Your task to perform on an android device: change the clock style Image 0: 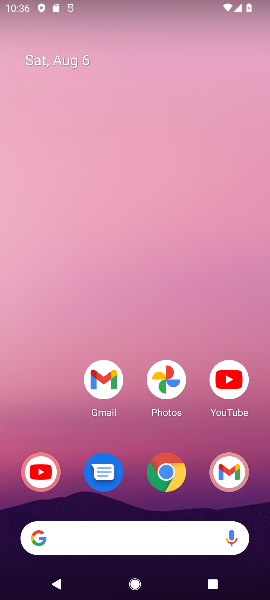
Step 0: drag from (179, 541) to (158, 105)
Your task to perform on an android device: change the clock style Image 1: 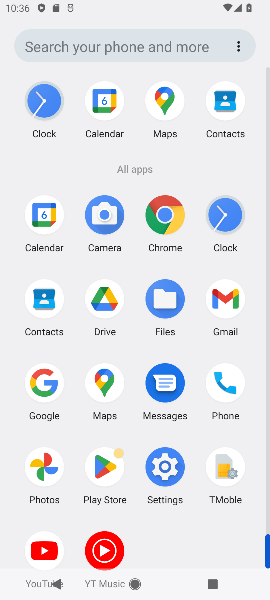
Step 1: click (222, 214)
Your task to perform on an android device: change the clock style Image 2: 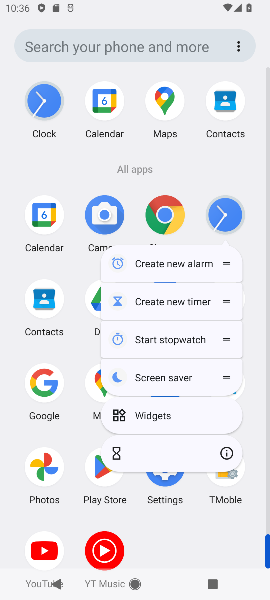
Step 2: click (222, 211)
Your task to perform on an android device: change the clock style Image 3: 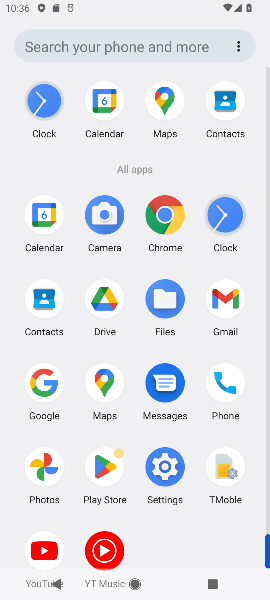
Step 3: click (222, 211)
Your task to perform on an android device: change the clock style Image 4: 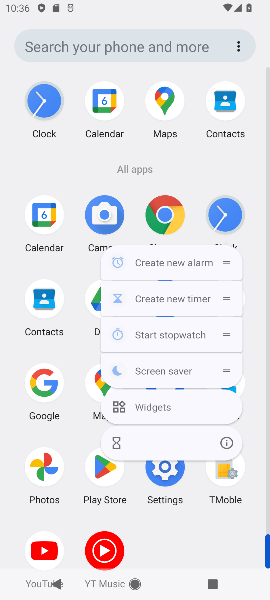
Step 4: click (219, 211)
Your task to perform on an android device: change the clock style Image 5: 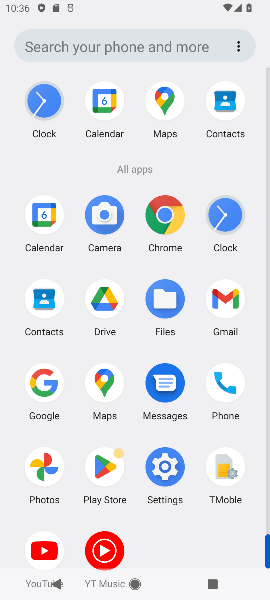
Step 5: click (219, 211)
Your task to perform on an android device: change the clock style Image 6: 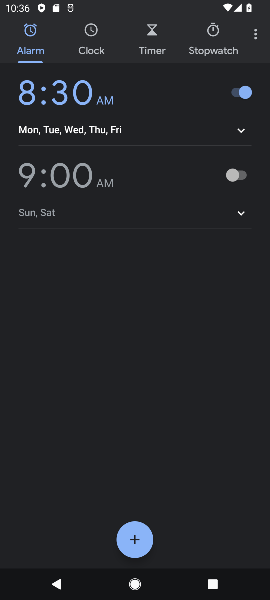
Step 6: click (226, 218)
Your task to perform on an android device: change the clock style Image 7: 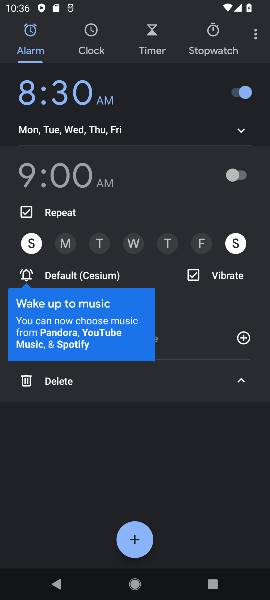
Step 7: click (257, 39)
Your task to perform on an android device: change the clock style Image 8: 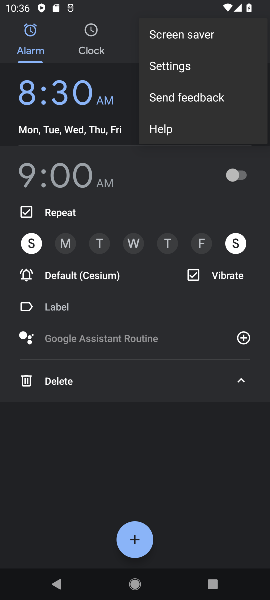
Step 8: click (168, 57)
Your task to perform on an android device: change the clock style Image 9: 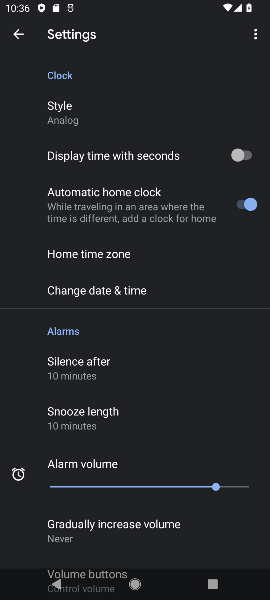
Step 9: drag from (108, 440) to (117, 222)
Your task to perform on an android device: change the clock style Image 10: 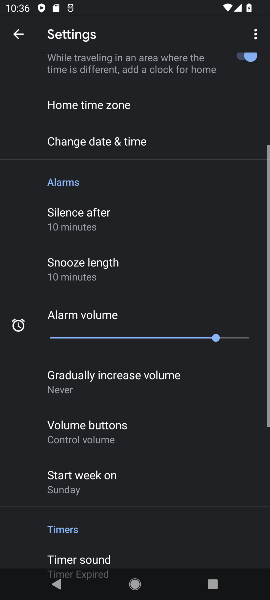
Step 10: drag from (132, 395) to (101, 227)
Your task to perform on an android device: change the clock style Image 11: 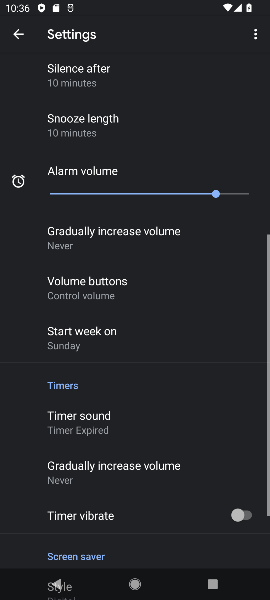
Step 11: drag from (130, 319) to (130, 185)
Your task to perform on an android device: change the clock style Image 12: 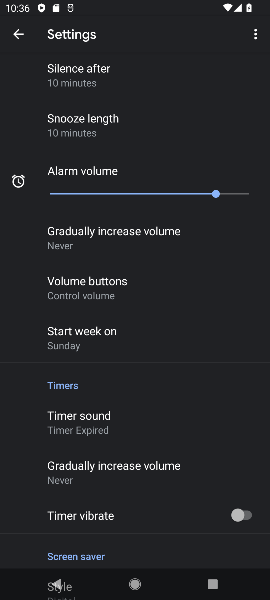
Step 12: drag from (93, 168) to (134, 401)
Your task to perform on an android device: change the clock style Image 13: 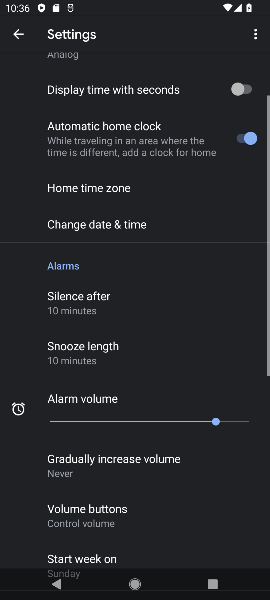
Step 13: drag from (134, 158) to (134, 447)
Your task to perform on an android device: change the clock style Image 14: 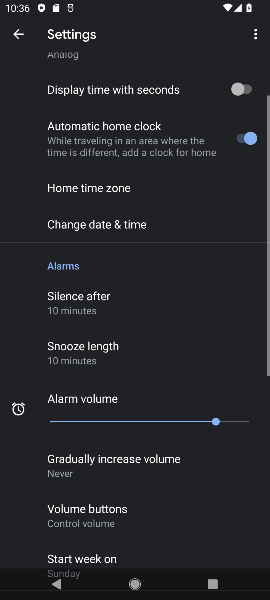
Step 14: drag from (92, 131) to (89, 424)
Your task to perform on an android device: change the clock style Image 15: 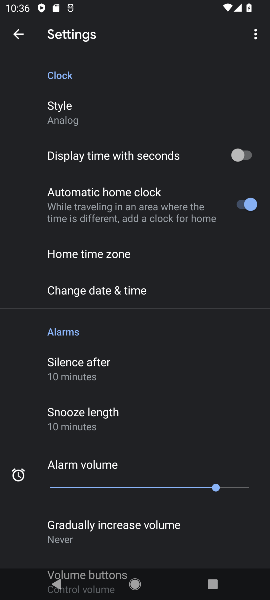
Step 15: click (79, 118)
Your task to perform on an android device: change the clock style Image 16: 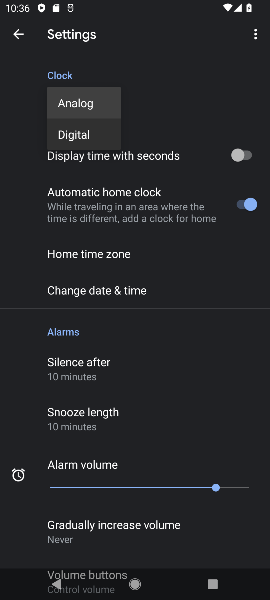
Step 16: click (78, 136)
Your task to perform on an android device: change the clock style Image 17: 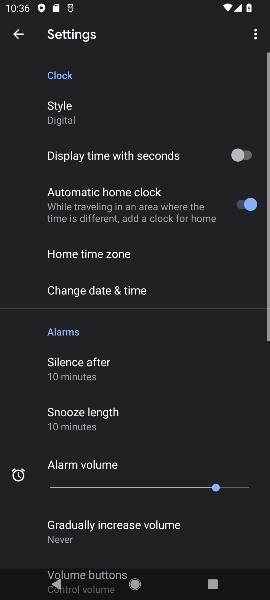
Step 17: task complete